Your task to perform on an android device: check android version Image 0: 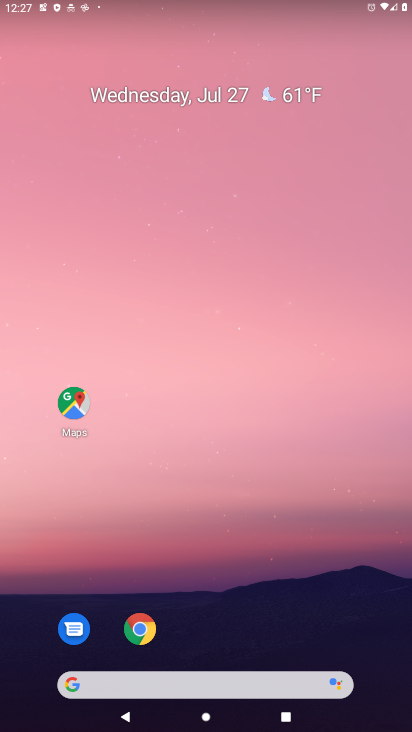
Step 0: drag from (197, 660) to (228, 2)
Your task to perform on an android device: check android version Image 1: 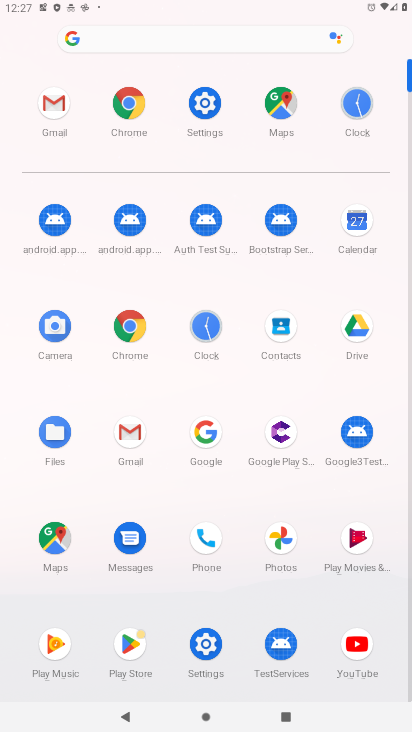
Step 1: click (220, 670)
Your task to perform on an android device: check android version Image 2: 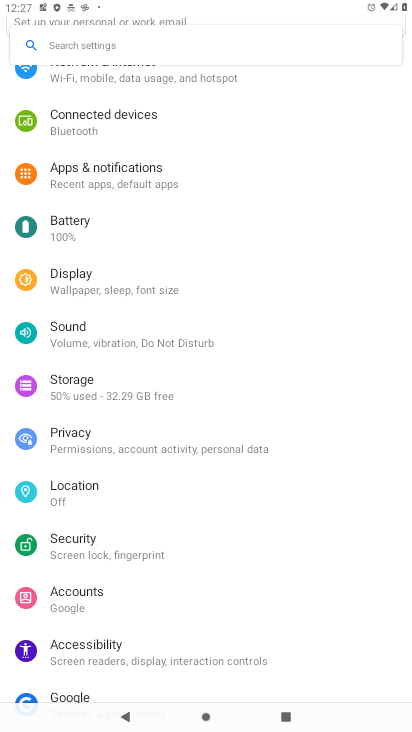
Step 2: task complete